Your task to perform on an android device: change notifications settings Image 0: 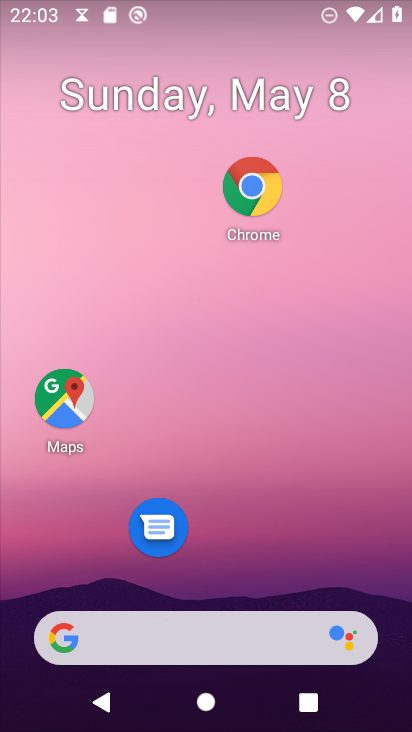
Step 0: drag from (324, 586) to (353, 297)
Your task to perform on an android device: change notifications settings Image 1: 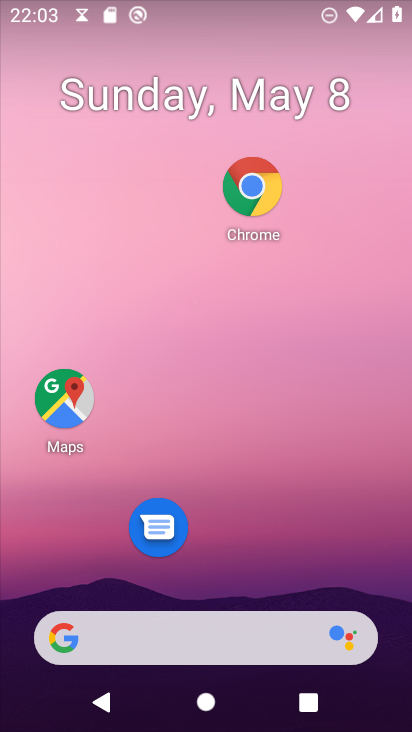
Step 1: drag from (294, 555) to (314, 191)
Your task to perform on an android device: change notifications settings Image 2: 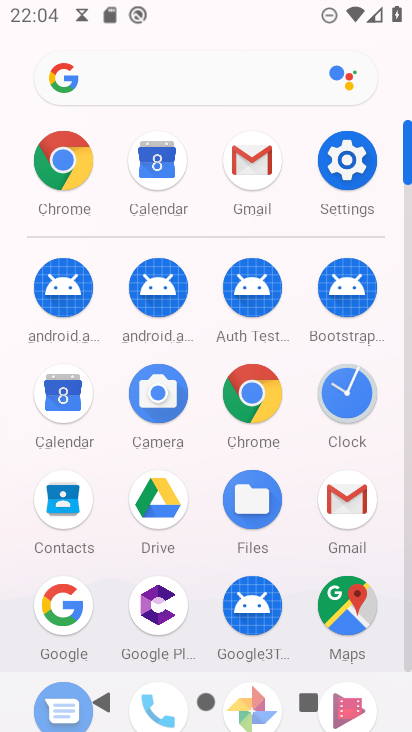
Step 2: click (333, 157)
Your task to perform on an android device: change notifications settings Image 3: 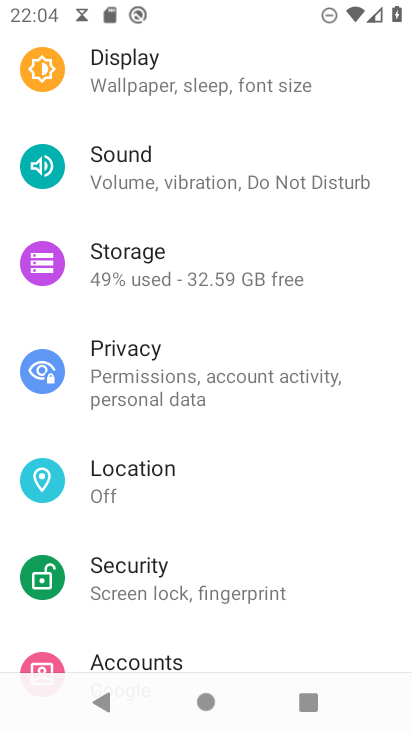
Step 3: drag from (196, 153) to (190, 551)
Your task to perform on an android device: change notifications settings Image 4: 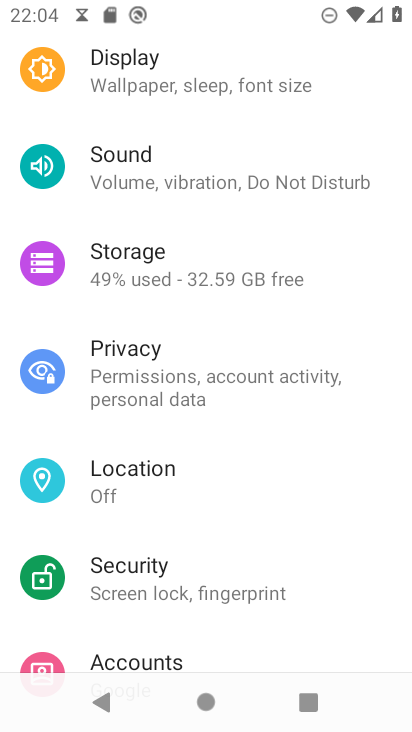
Step 4: drag from (189, 136) to (199, 620)
Your task to perform on an android device: change notifications settings Image 5: 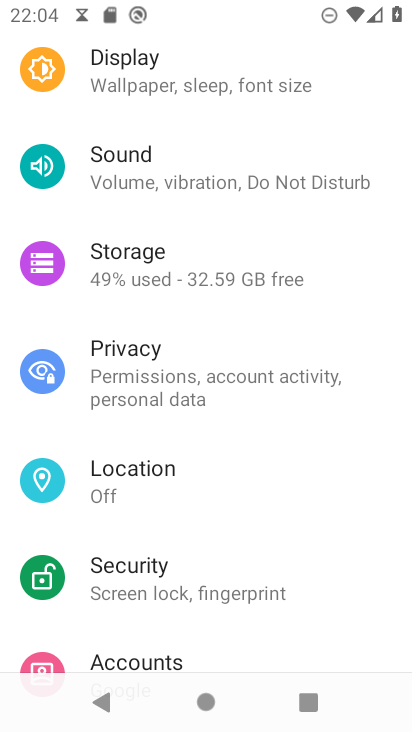
Step 5: drag from (236, 122) to (247, 390)
Your task to perform on an android device: change notifications settings Image 6: 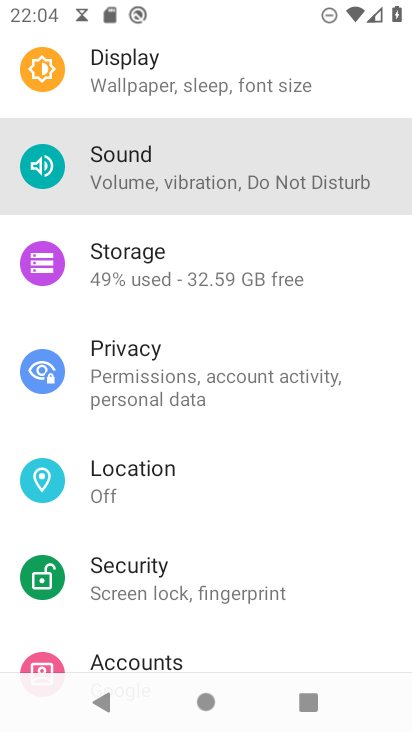
Step 6: drag from (242, 199) to (247, 480)
Your task to perform on an android device: change notifications settings Image 7: 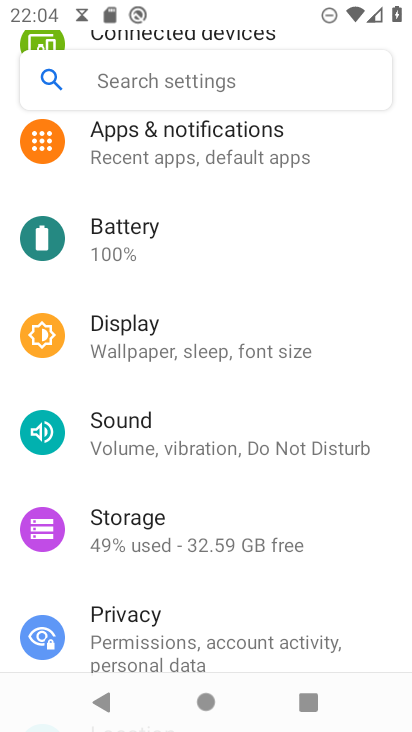
Step 7: drag from (207, 214) to (180, 499)
Your task to perform on an android device: change notifications settings Image 8: 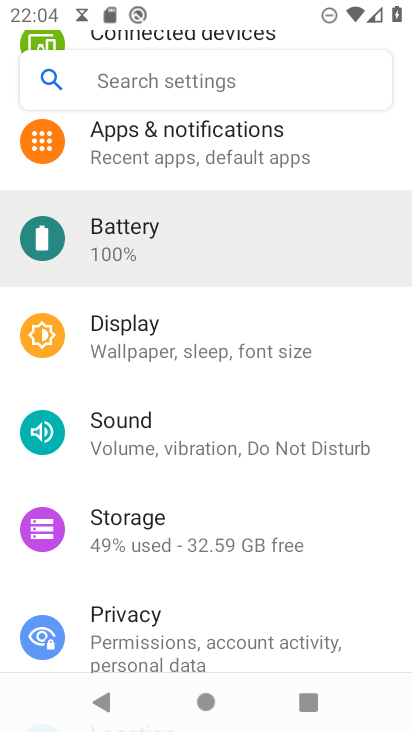
Step 8: drag from (185, 176) to (208, 452)
Your task to perform on an android device: change notifications settings Image 9: 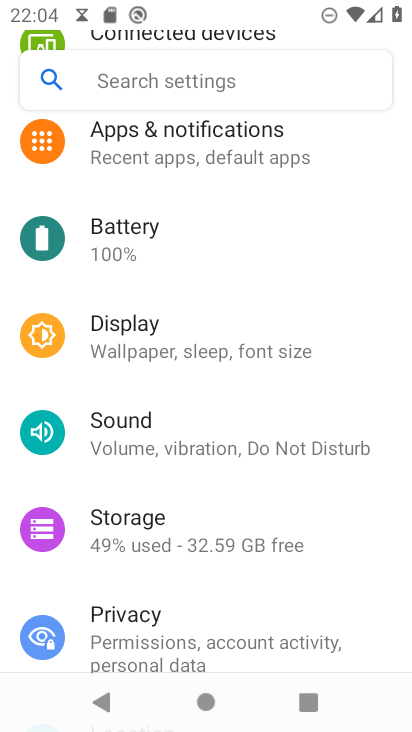
Step 9: click (214, 151)
Your task to perform on an android device: change notifications settings Image 10: 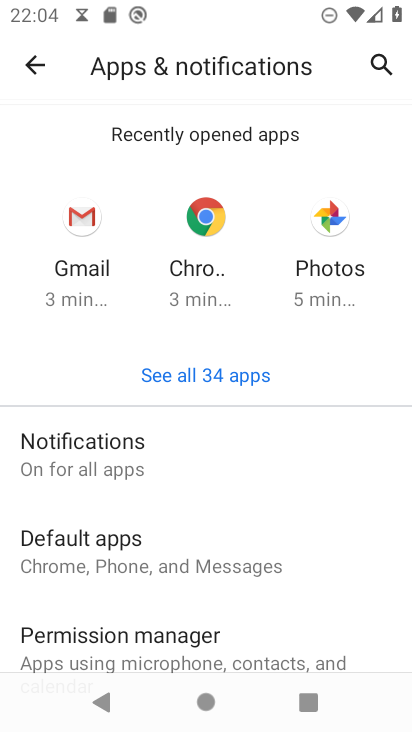
Step 10: click (76, 440)
Your task to perform on an android device: change notifications settings Image 11: 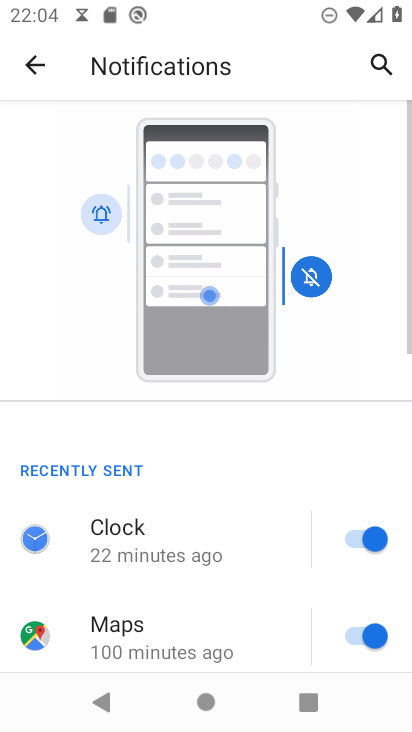
Step 11: drag from (229, 577) to (314, 240)
Your task to perform on an android device: change notifications settings Image 12: 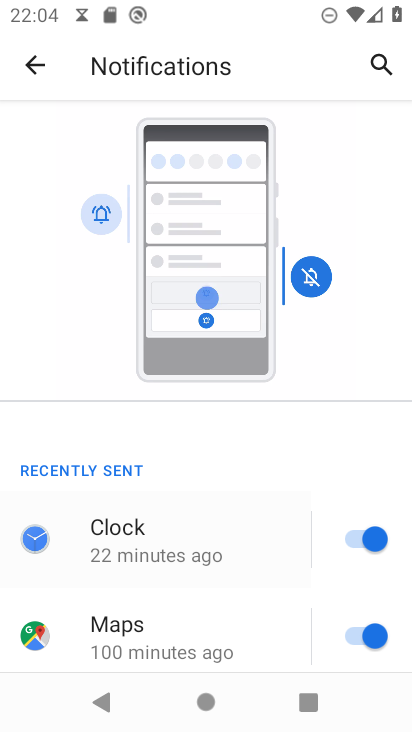
Step 12: drag from (348, 544) to (372, 196)
Your task to perform on an android device: change notifications settings Image 13: 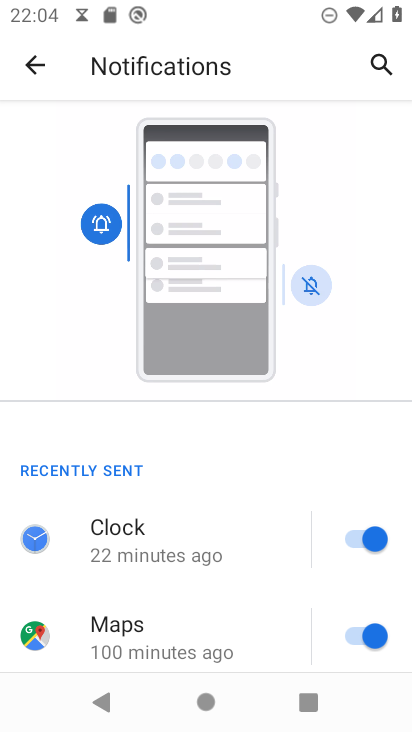
Step 13: drag from (243, 592) to (311, 147)
Your task to perform on an android device: change notifications settings Image 14: 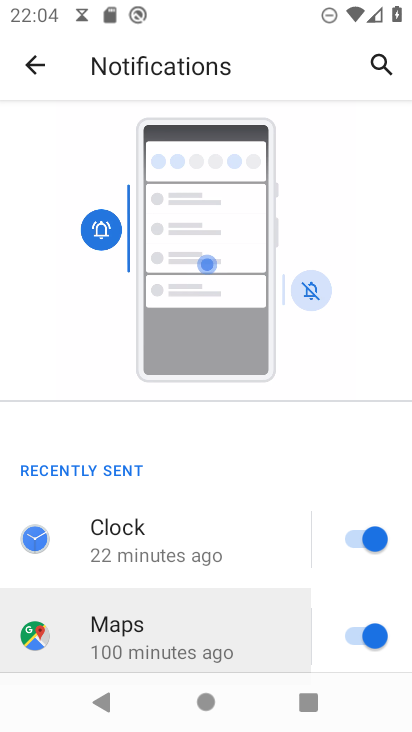
Step 14: drag from (91, 589) to (116, 102)
Your task to perform on an android device: change notifications settings Image 15: 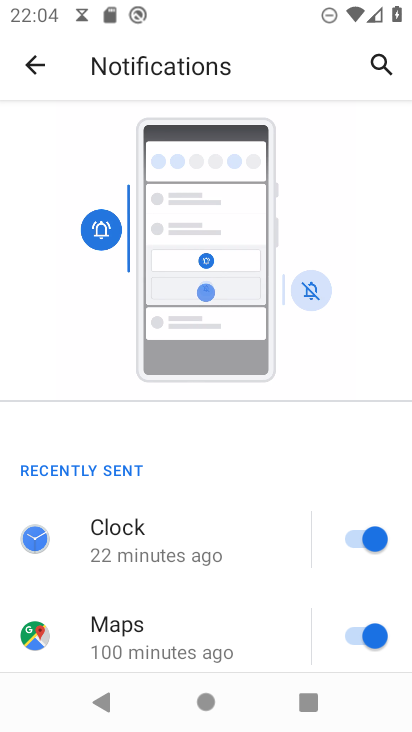
Step 15: drag from (198, 628) to (298, 126)
Your task to perform on an android device: change notifications settings Image 16: 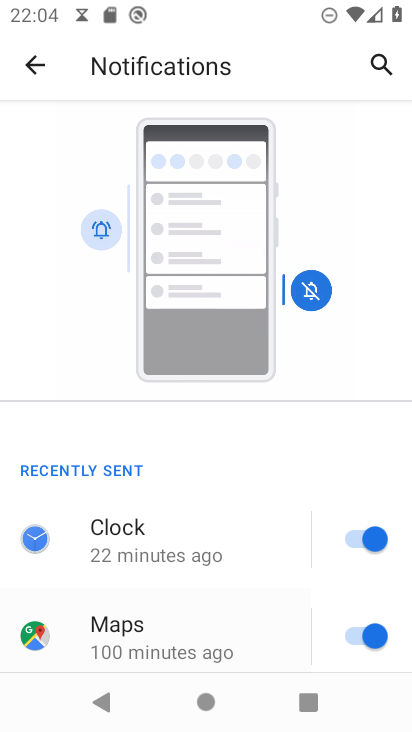
Step 16: drag from (227, 562) to (310, 246)
Your task to perform on an android device: change notifications settings Image 17: 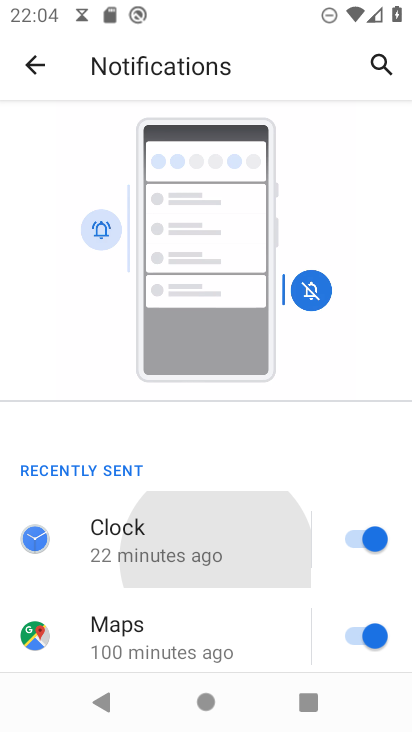
Step 17: drag from (189, 491) to (272, 210)
Your task to perform on an android device: change notifications settings Image 18: 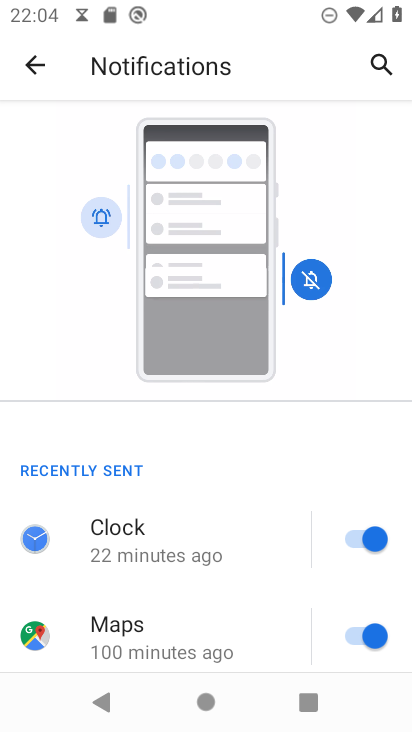
Step 18: drag from (250, 526) to (317, 293)
Your task to perform on an android device: change notifications settings Image 19: 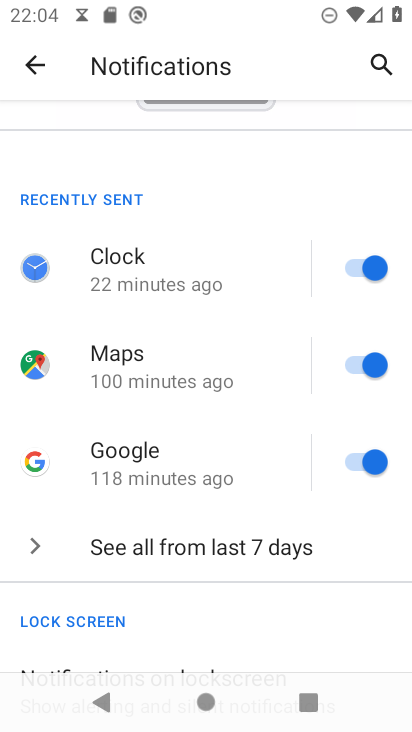
Step 19: click (207, 548)
Your task to perform on an android device: change notifications settings Image 20: 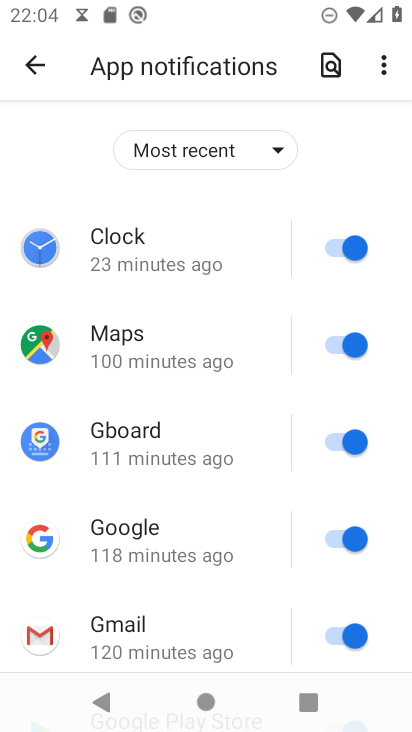
Step 20: drag from (194, 583) to (227, 327)
Your task to perform on an android device: change notifications settings Image 21: 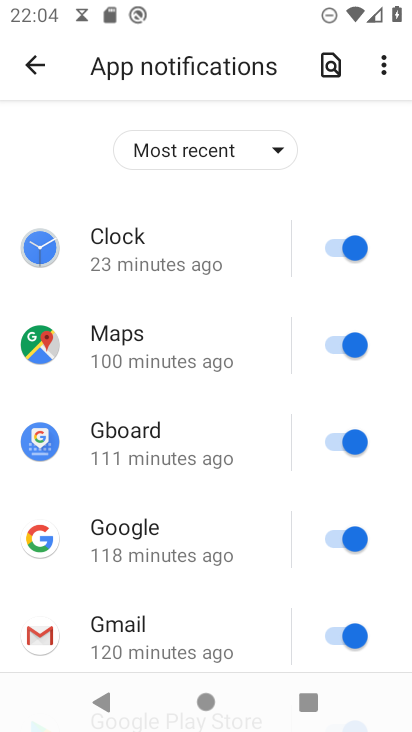
Step 21: click (341, 242)
Your task to perform on an android device: change notifications settings Image 22: 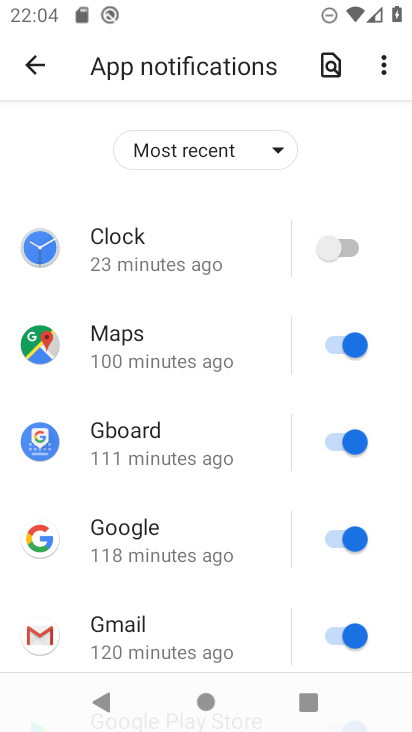
Step 22: click (345, 347)
Your task to perform on an android device: change notifications settings Image 23: 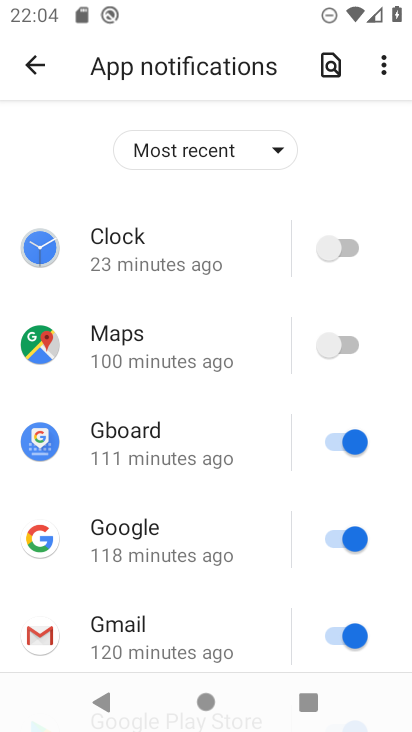
Step 23: click (328, 432)
Your task to perform on an android device: change notifications settings Image 24: 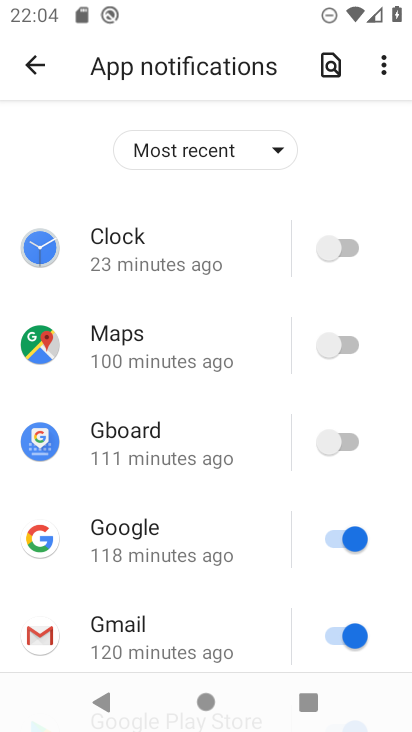
Step 24: click (340, 537)
Your task to perform on an android device: change notifications settings Image 25: 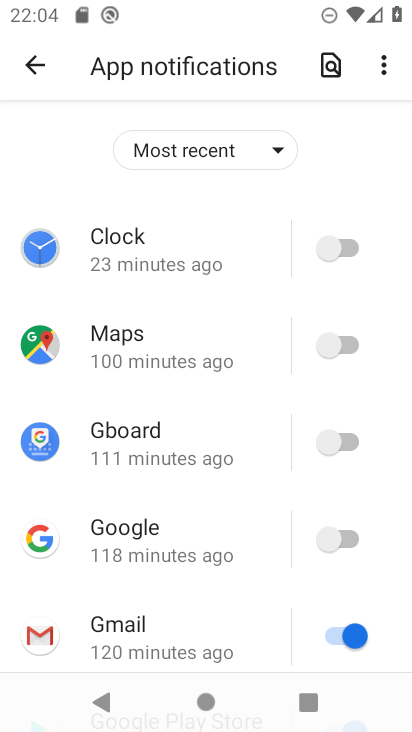
Step 25: click (336, 636)
Your task to perform on an android device: change notifications settings Image 26: 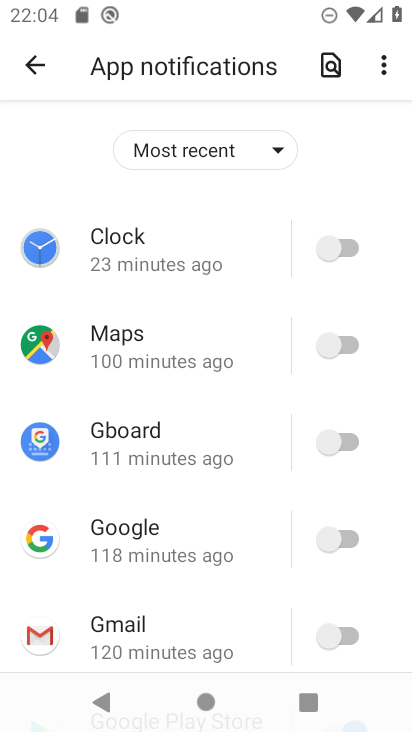
Step 26: drag from (262, 618) to (294, 173)
Your task to perform on an android device: change notifications settings Image 27: 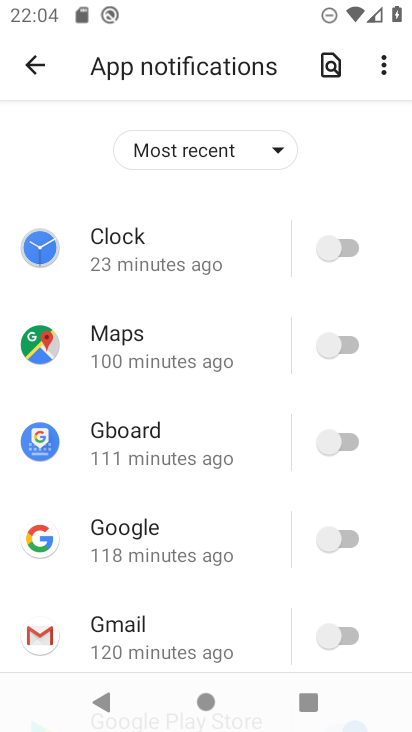
Step 27: drag from (190, 560) to (274, 169)
Your task to perform on an android device: change notifications settings Image 28: 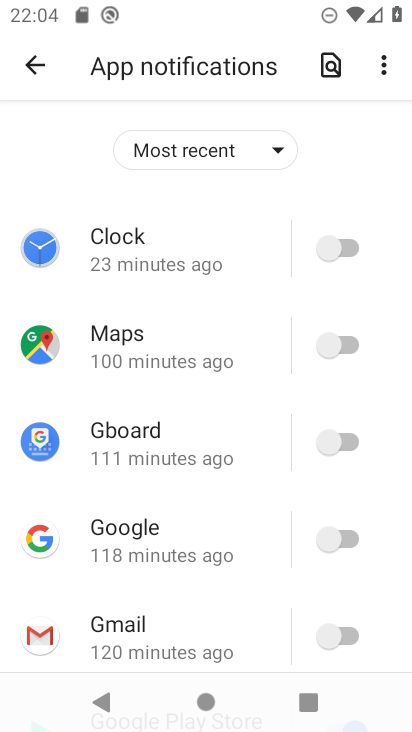
Step 28: drag from (204, 623) to (285, 211)
Your task to perform on an android device: change notifications settings Image 29: 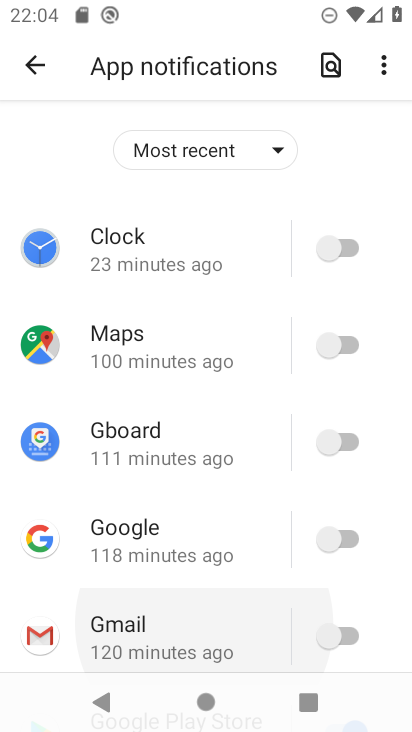
Step 29: drag from (229, 491) to (227, 216)
Your task to perform on an android device: change notifications settings Image 30: 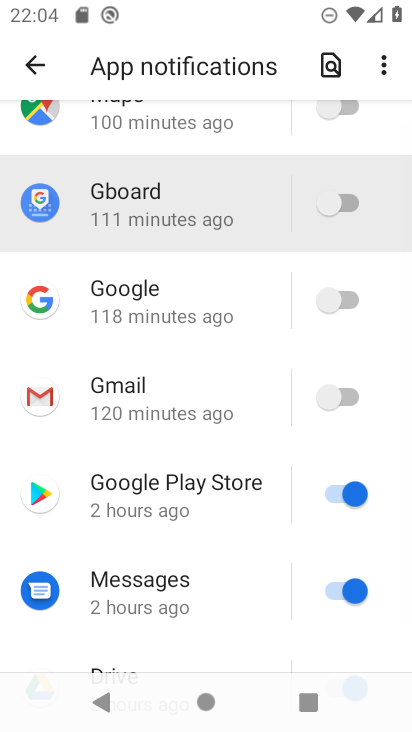
Step 30: drag from (163, 471) to (205, 237)
Your task to perform on an android device: change notifications settings Image 31: 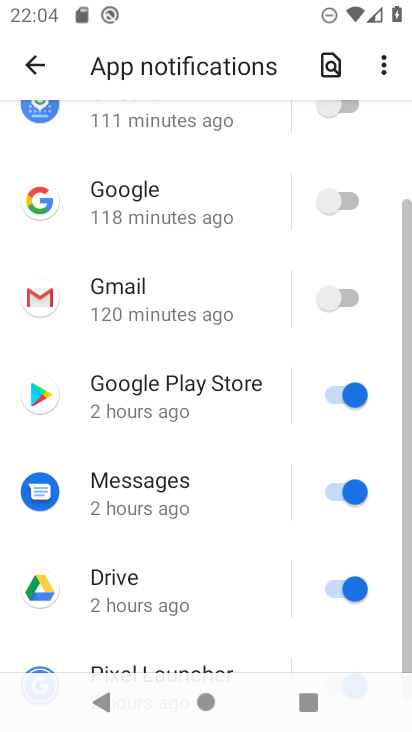
Step 31: click (326, 391)
Your task to perform on an android device: change notifications settings Image 32: 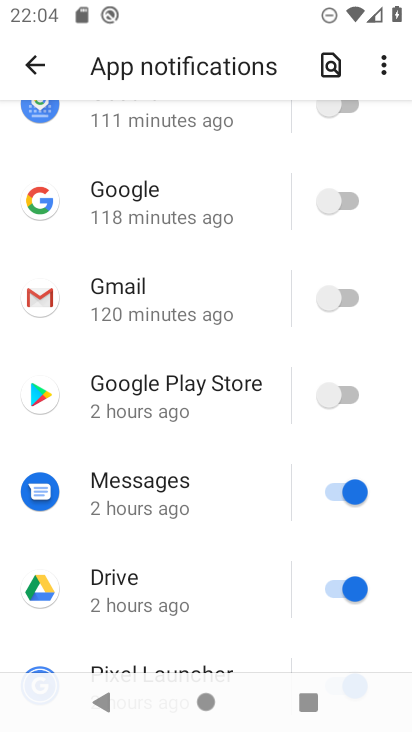
Step 32: click (338, 494)
Your task to perform on an android device: change notifications settings Image 33: 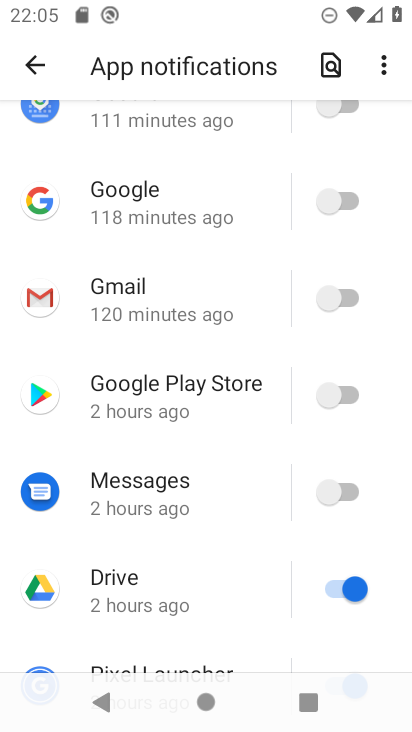
Step 33: click (329, 586)
Your task to perform on an android device: change notifications settings Image 34: 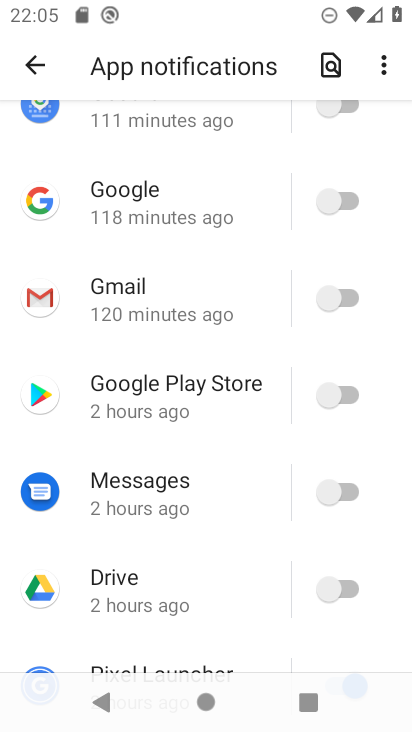
Step 34: drag from (172, 503) to (269, 108)
Your task to perform on an android device: change notifications settings Image 35: 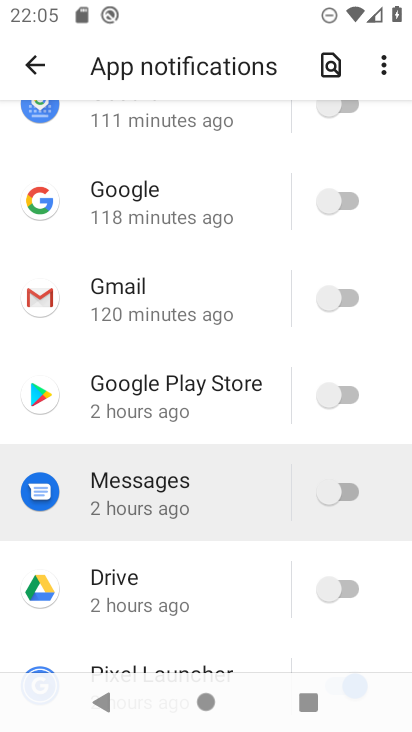
Step 35: drag from (240, 467) to (293, 185)
Your task to perform on an android device: change notifications settings Image 36: 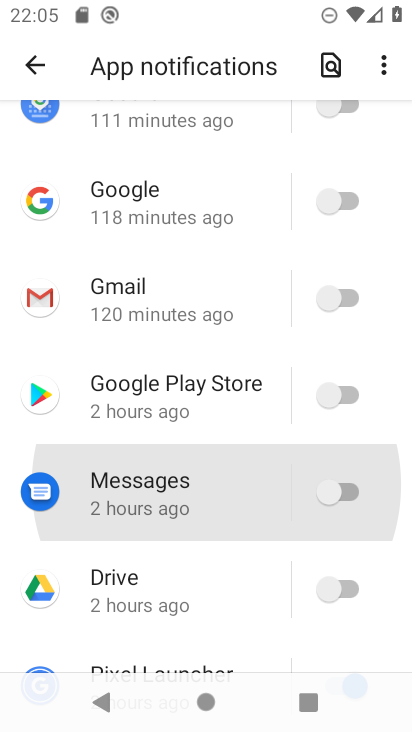
Step 36: drag from (260, 355) to (309, 113)
Your task to perform on an android device: change notifications settings Image 37: 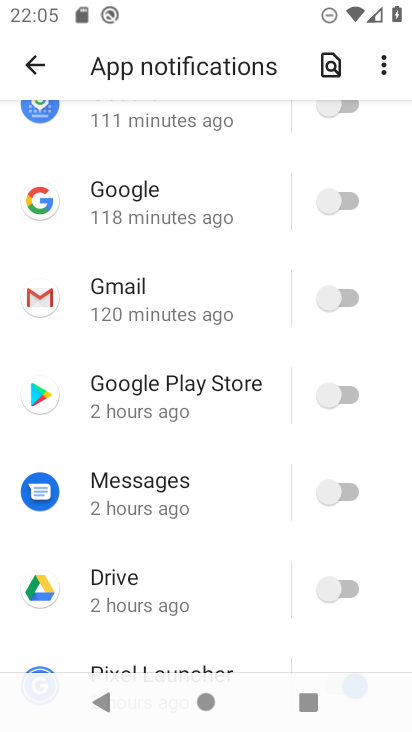
Step 37: drag from (255, 461) to (303, 167)
Your task to perform on an android device: change notifications settings Image 38: 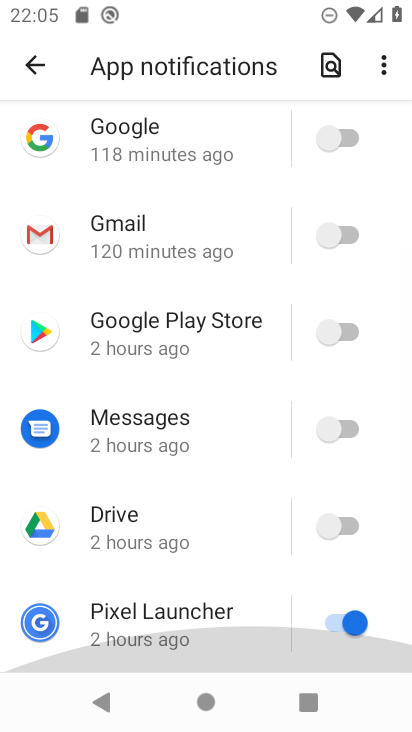
Step 38: drag from (246, 529) to (300, 207)
Your task to perform on an android device: change notifications settings Image 39: 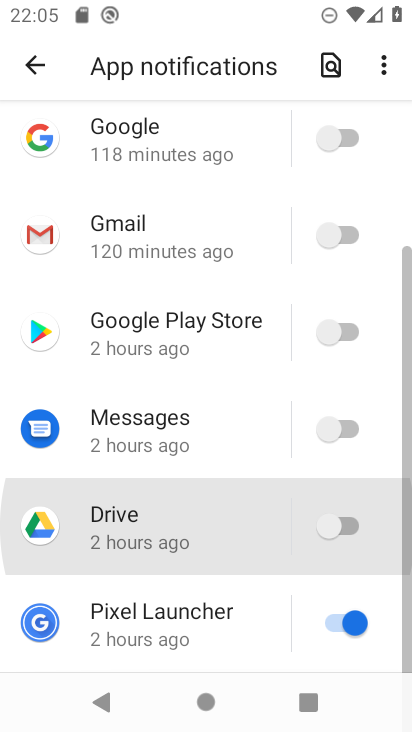
Step 39: drag from (207, 610) to (245, 306)
Your task to perform on an android device: change notifications settings Image 40: 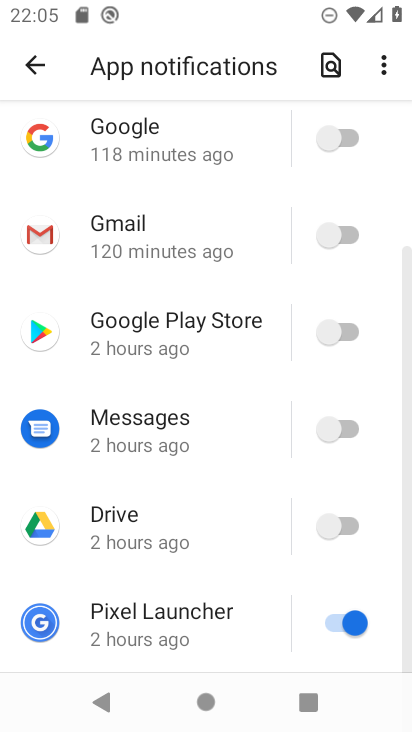
Step 40: click (331, 625)
Your task to perform on an android device: change notifications settings Image 41: 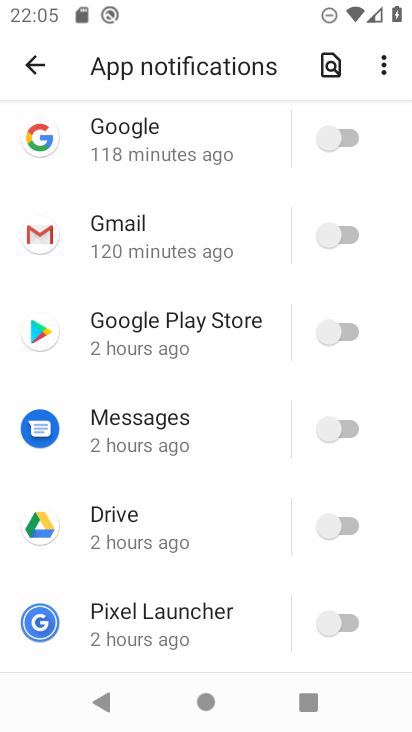
Step 41: task complete